Your task to perform on an android device: Go to internet settings Image 0: 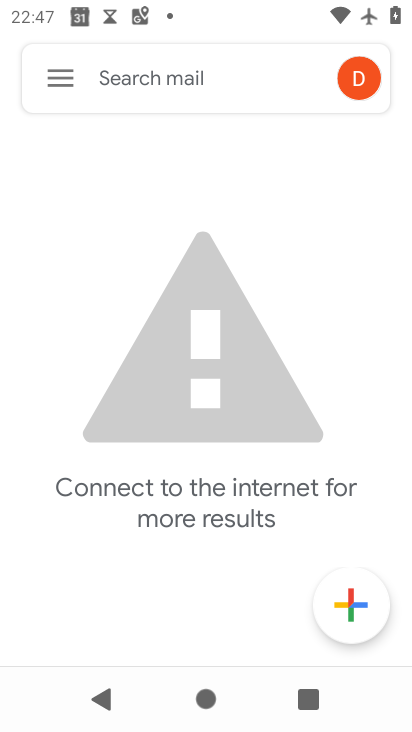
Step 0: press home button
Your task to perform on an android device: Go to internet settings Image 1: 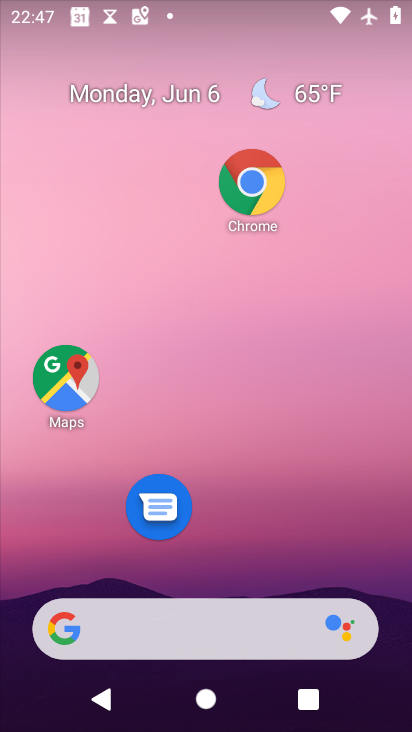
Step 1: drag from (267, 560) to (257, 242)
Your task to perform on an android device: Go to internet settings Image 2: 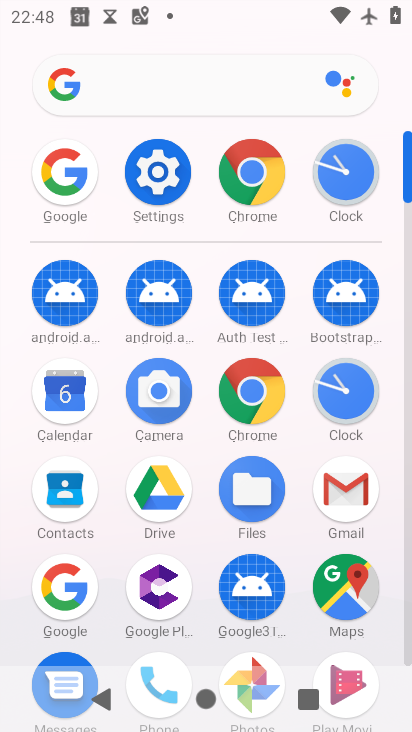
Step 2: click (147, 161)
Your task to perform on an android device: Go to internet settings Image 3: 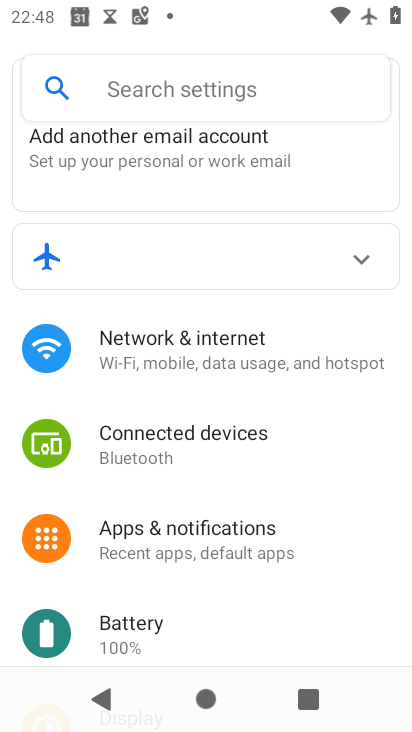
Step 3: click (169, 334)
Your task to perform on an android device: Go to internet settings Image 4: 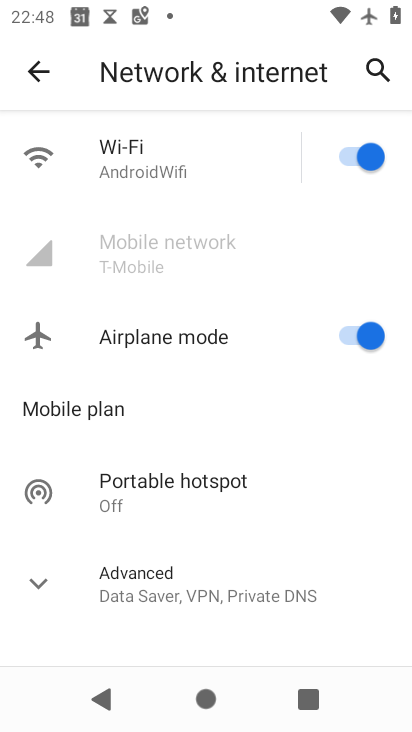
Step 4: task complete